Your task to perform on an android device: toggle translation in the chrome app Image 0: 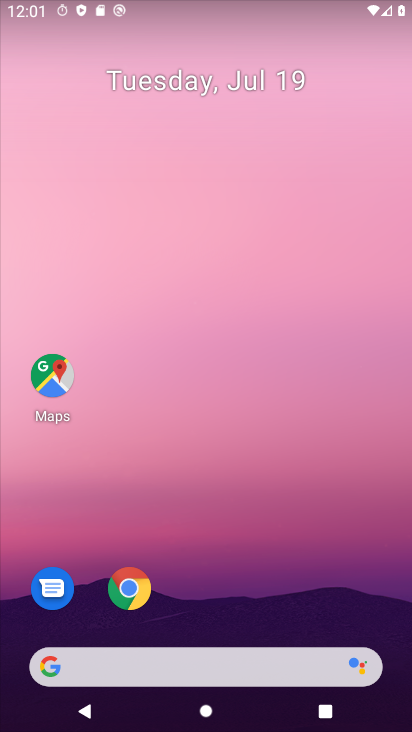
Step 0: drag from (204, 326) to (139, 57)
Your task to perform on an android device: toggle translation in the chrome app Image 1: 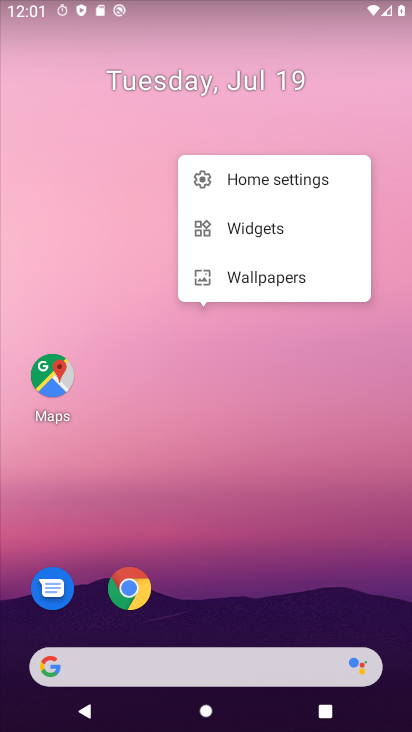
Step 1: drag from (175, 210) to (125, 25)
Your task to perform on an android device: toggle translation in the chrome app Image 2: 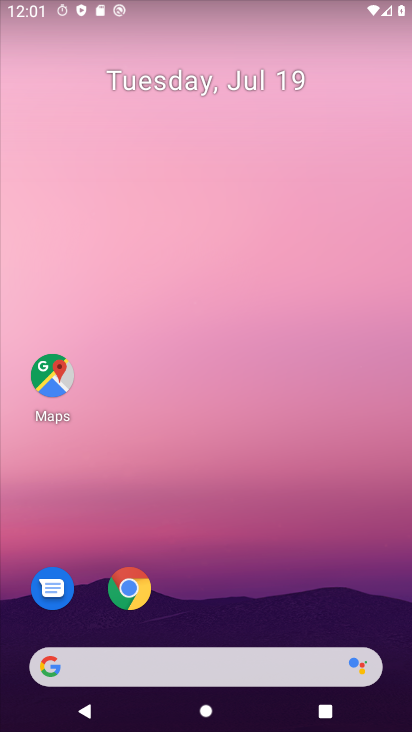
Step 2: click (167, 150)
Your task to perform on an android device: toggle translation in the chrome app Image 3: 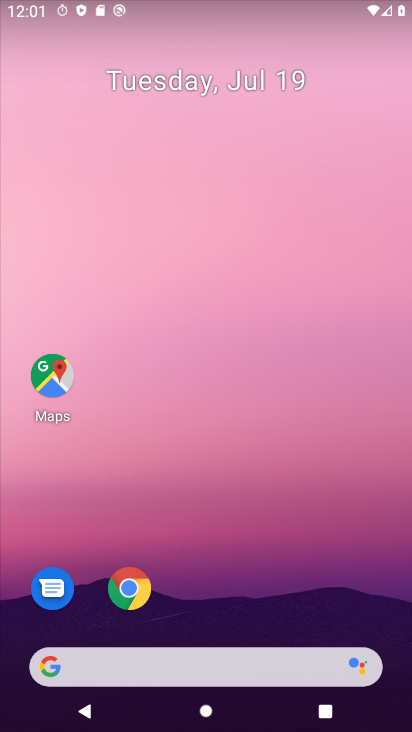
Step 3: drag from (170, 188) to (166, 132)
Your task to perform on an android device: toggle translation in the chrome app Image 4: 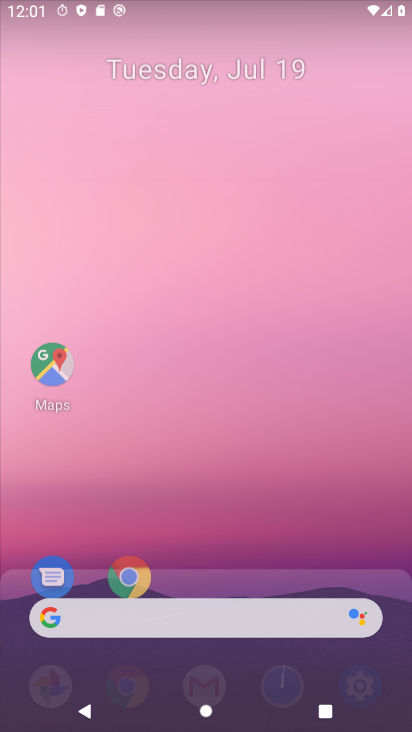
Step 4: click (148, 58)
Your task to perform on an android device: toggle translation in the chrome app Image 5: 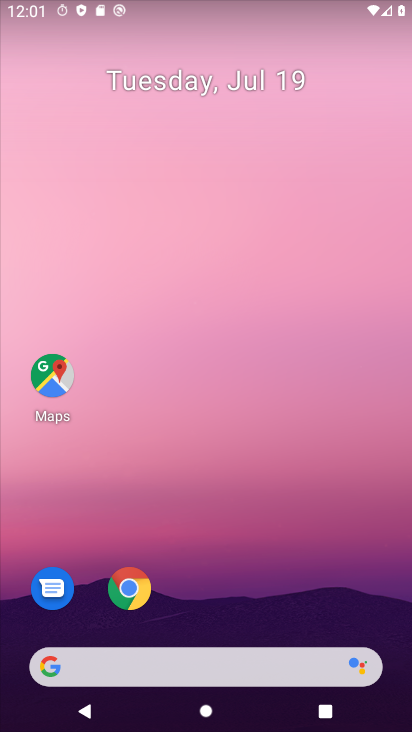
Step 5: drag from (208, 118) to (164, 77)
Your task to perform on an android device: toggle translation in the chrome app Image 6: 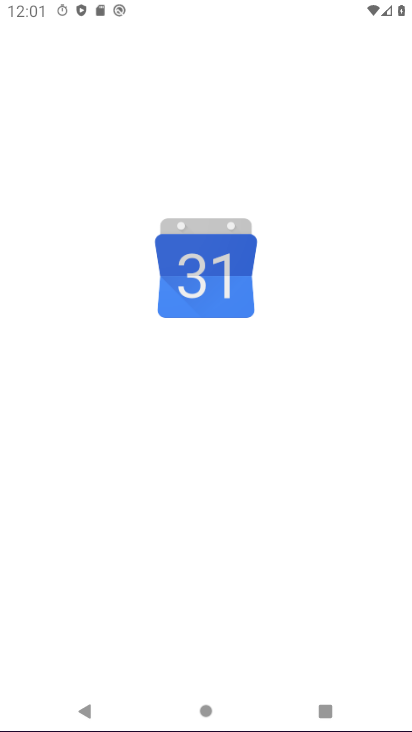
Step 6: drag from (187, 23) to (206, 121)
Your task to perform on an android device: toggle translation in the chrome app Image 7: 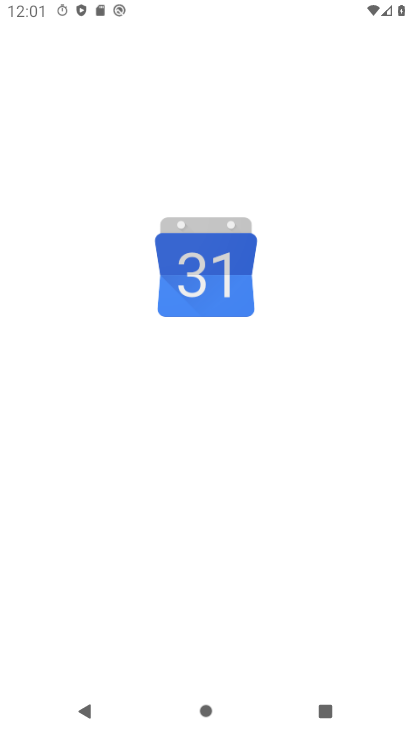
Step 7: click (224, 213)
Your task to perform on an android device: toggle translation in the chrome app Image 8: 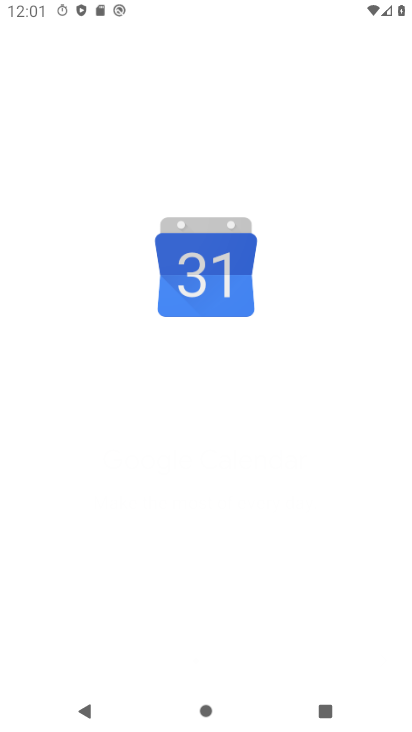
Step 8: click (220, 453)
Your task to perform on an android device: toggle translation in the chrome app Image 9: 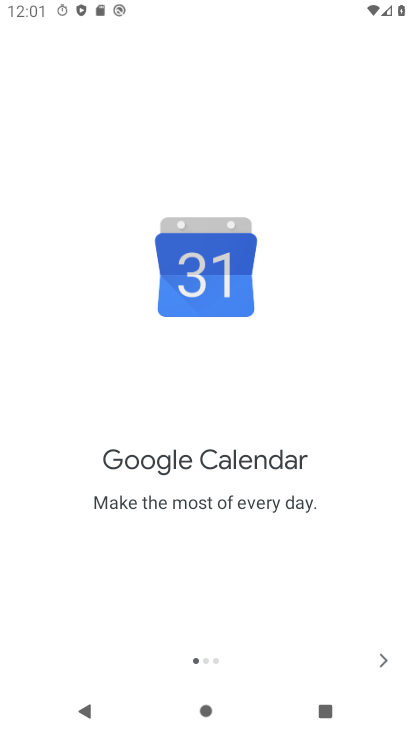
Step 9: click (189, 109)
Your task to perform on an android device: toggle translation in the chrome app Image 10: 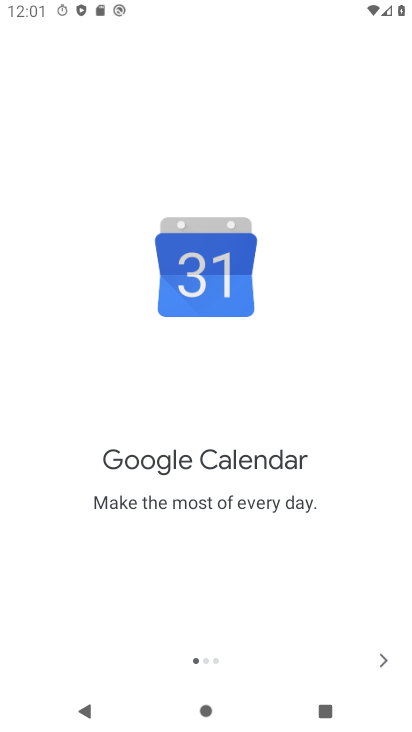
Step 10: press back button
Your task to perform on an android device: toggle translation in the chrome app Image 11: 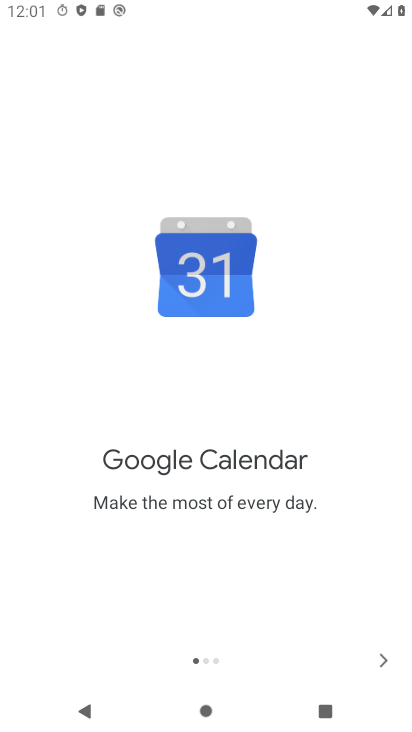
Step 11: press back button
Your task to perform on an android device: toggle translation in the chrome app Image 12: 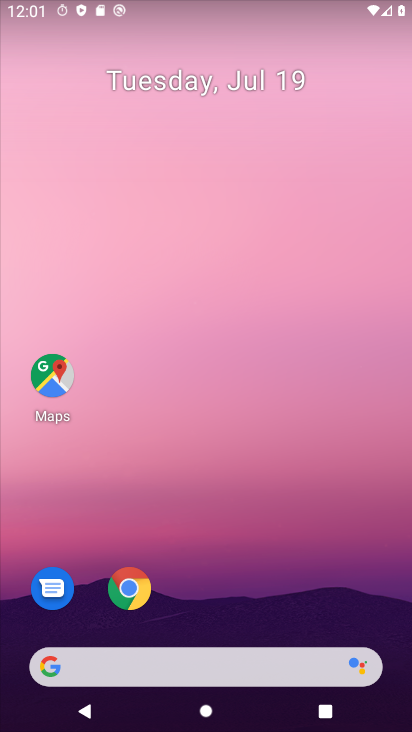
Step 12: drag from (259, 534) to (175, 48)
Your task to perform on an android device: toggle translation in the chrome app Image 13: 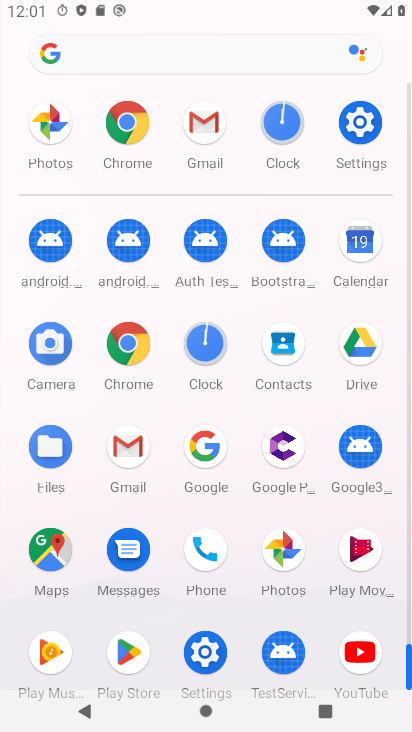
Step 13: click (113, 131)
Your task to perform on an android device: toggle translation in the chrome app Image 14: 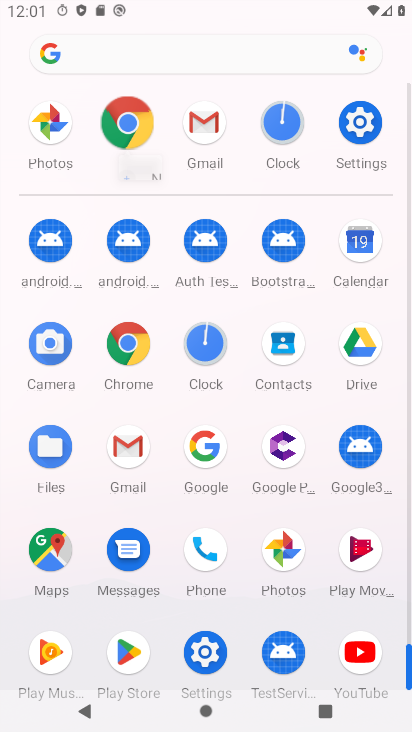
Step 14: click (124, 131)
Your task to perform on an android device: toggle translation in the chrome app Image 15: 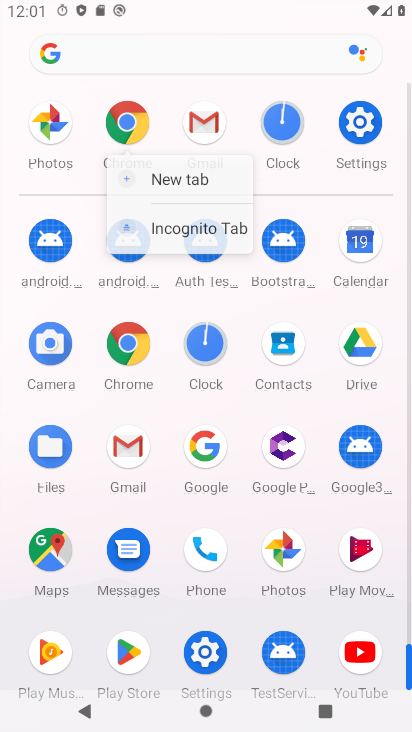
Step 15: click (124, 131)
Your task to perform on an android device: toggle translation in the chrome app Image 16: 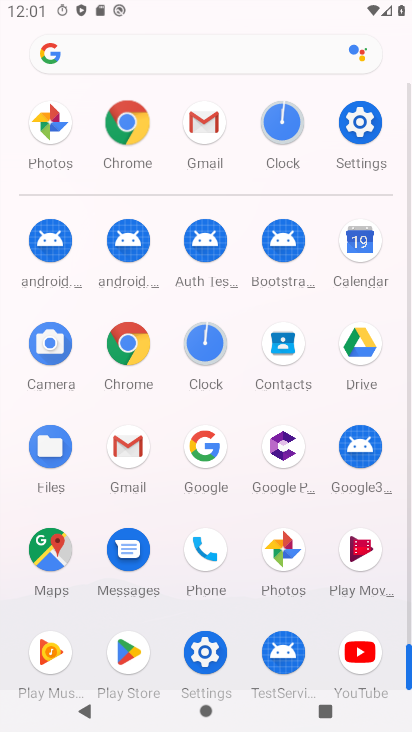
Step 16: click (131, 125)
Your task to perform on an android device: toggle translation in the chrome app Image 17: 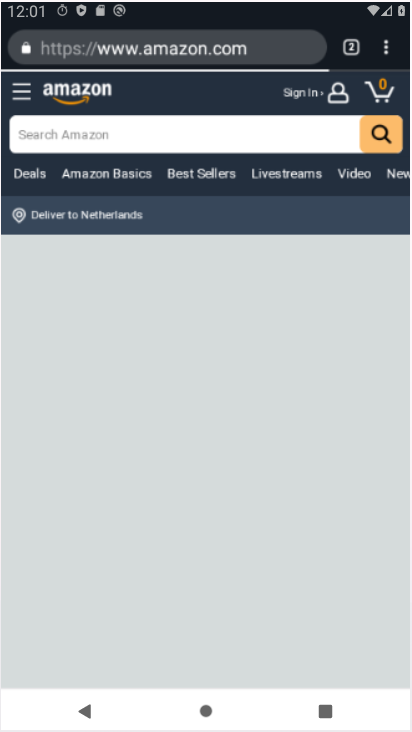
Step 17: click (133, 125)
Your task to perform on an android device: toggle translation in the chrome app Image 18: 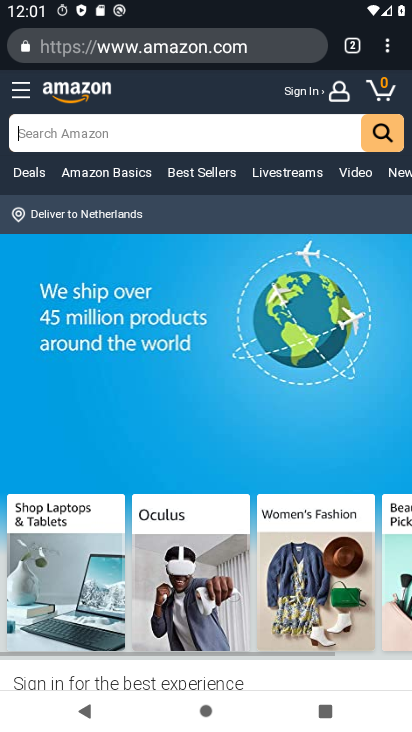
Step 18: drag from (386, 47) to (217, 557)
Your task to perform on an android device: toggle translation in the chrome app Image 19: 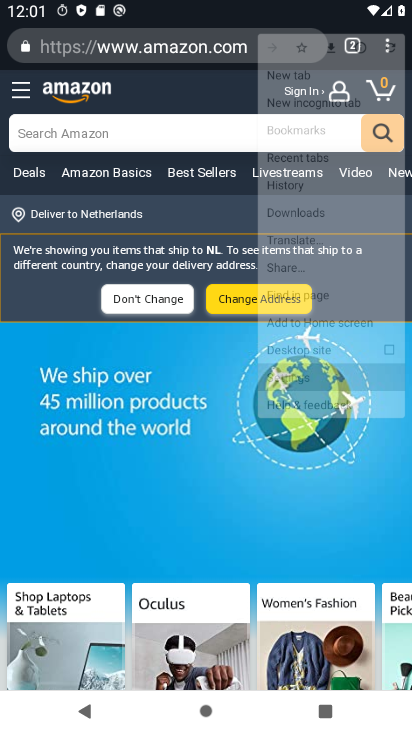
Step 19: click (222, 560)
Your task to perform on an android device: toggle translation in the chrome app Image 20: 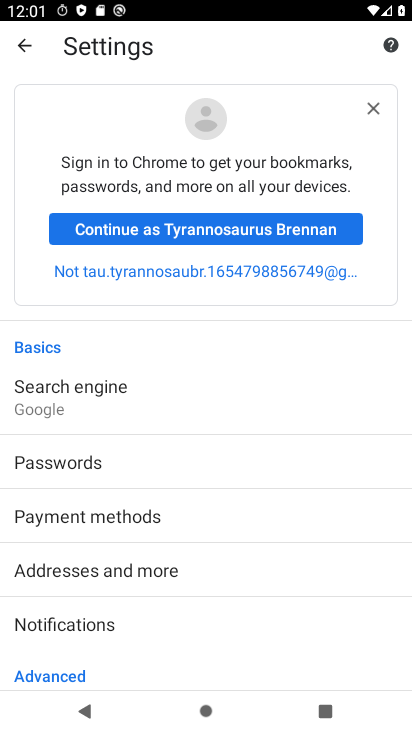
Step 20: drag from (148, 591) to (123, 391)
Your task to perform on an android device: toggle translation in the chrome app Image 21: 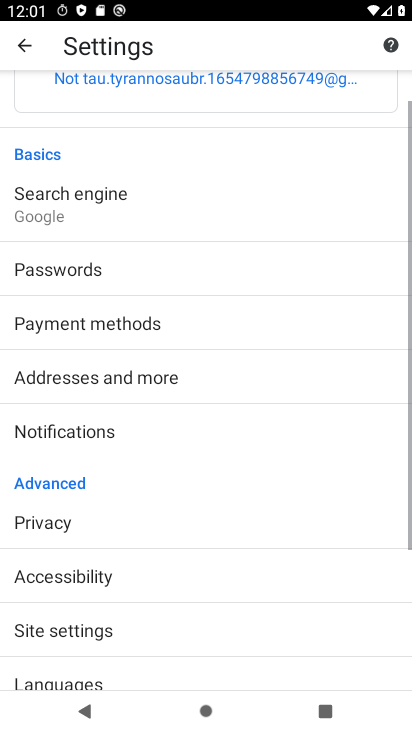
Step 21: drag from (152, 476) to (160, 251)
Your task to perform on an android device: toggle translation in the chrome app Image 22: 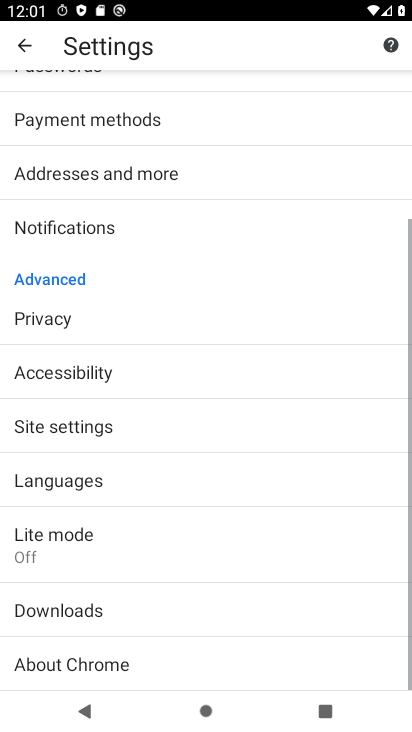
Step 22: drag from (156, 333) to (156, 241)
Your task to perform on an android device: toggle translation in the chrome app Image 23: 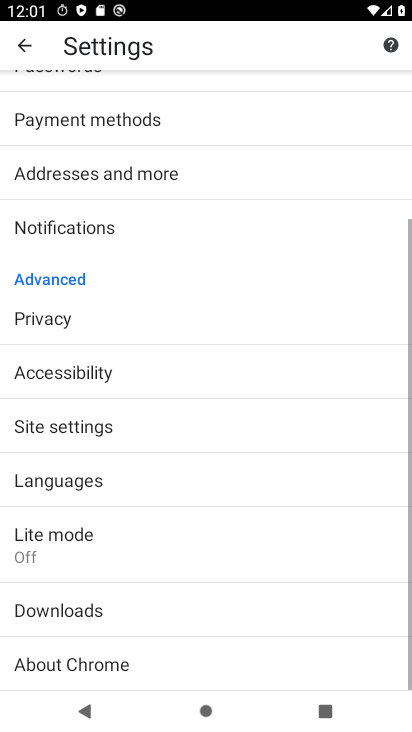
Step 23: drag from (160, 358) to (160, 241)
Your task to perform on an android device: toggle translation in the chrome app Image 24: 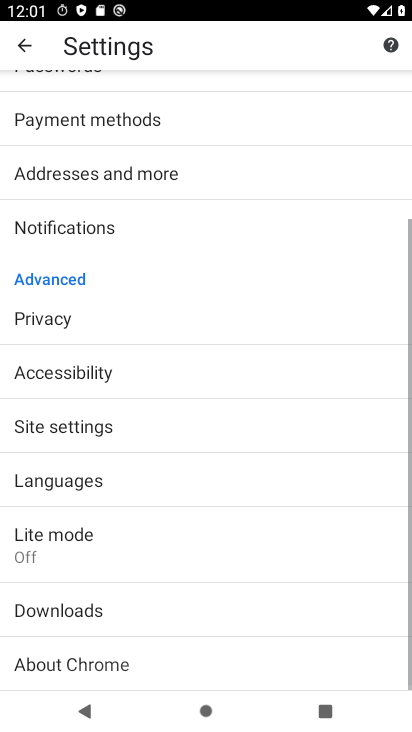
Step 24: drag from (124, 625) to (117, 246)
Your task to perform on an android device: toggle translation in the chrome app Image 25: 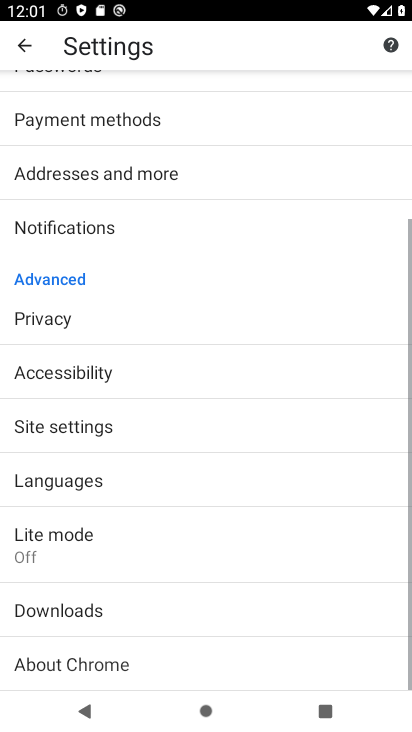
Step 25: drag from (204, 270) to (204, 201)
Your task to perform on an android device: toggle translation in the chrome app Image 26: 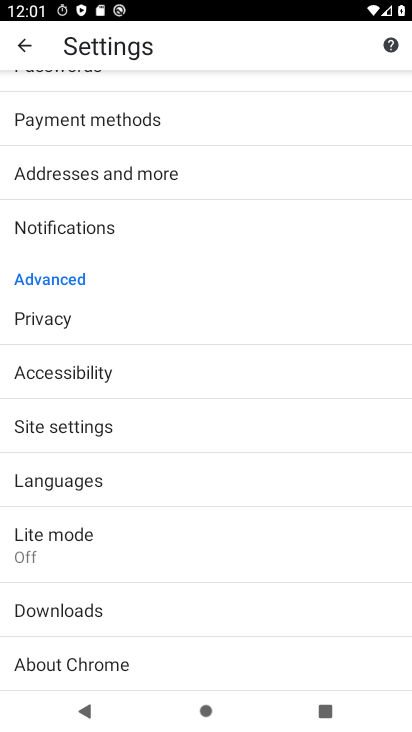
Step 26: click (84, 472)
Your task to perform on an android device: toggle translation in the chrome app Image 27: 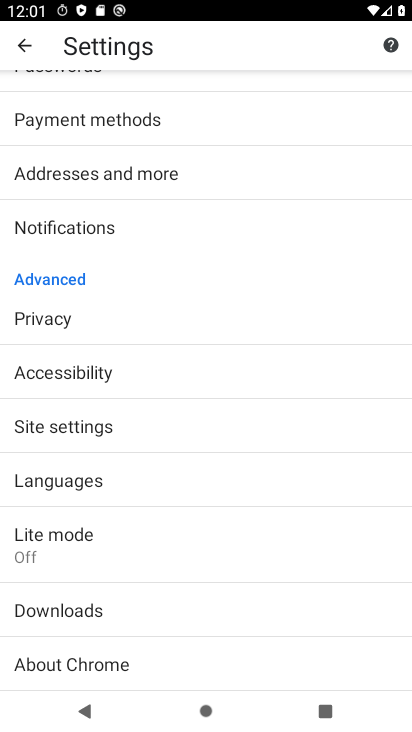
Step 27: click (85, 474)
Your task to perform on an android device: toggle translation in the chrome app Image 28: 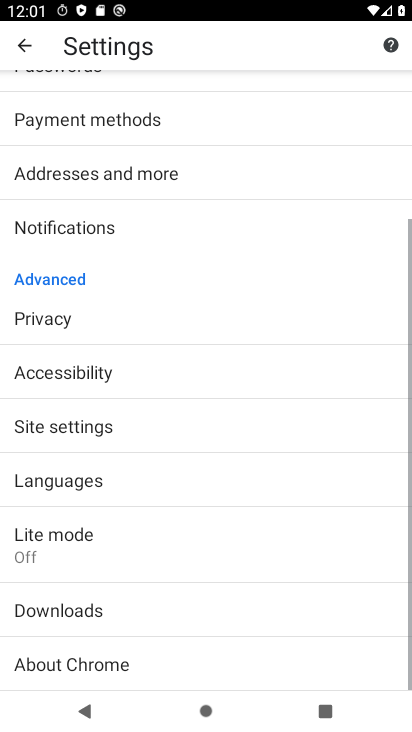
Step 28: click (92, 480)
Your task to perform on an android device: toggle translation in the chrome app Image 29: 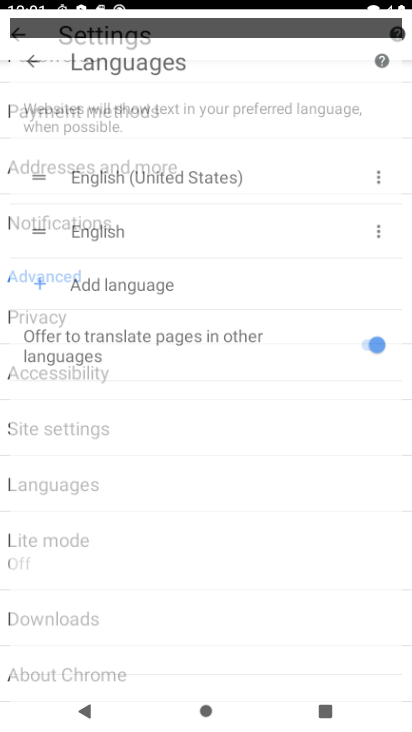
Step 29: click (93, 481)
Your task to perform on an android device: toggle translation in the chrome app Image 30: 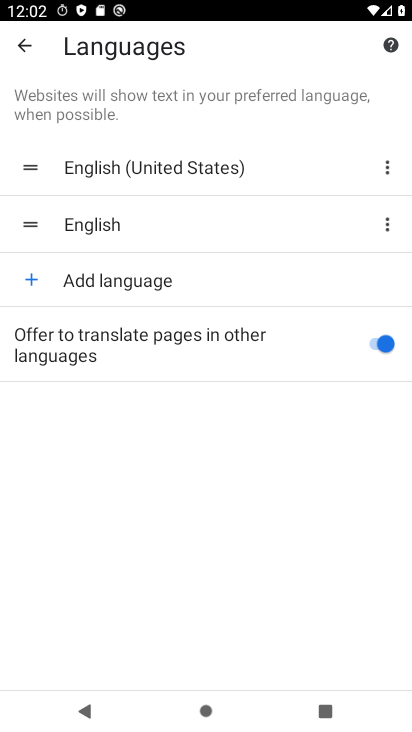
Step 30: click (377, 339)
Your task to perform on an android device: toggle translation in the chrome app Image 31: 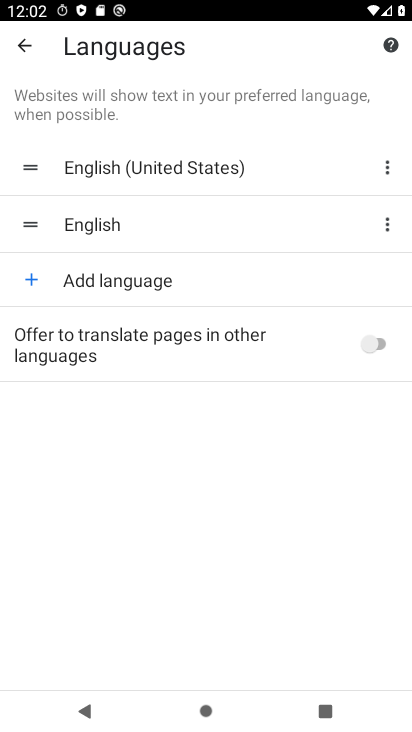
Step 31: click (388, 344)
Your task to perform on an android device: toggle translation in the chrome app Image 32: 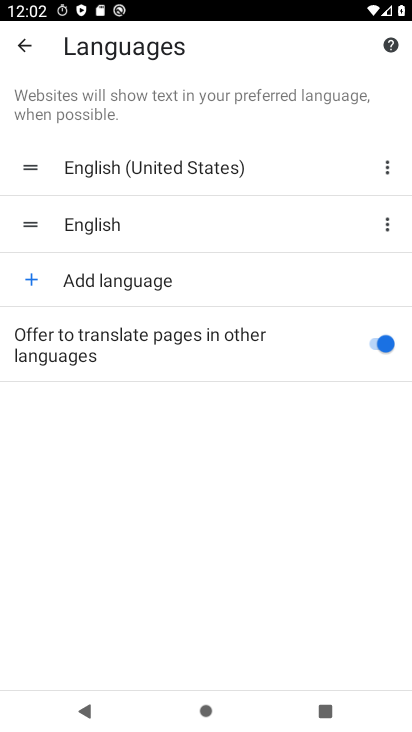
Step 32: click (379, 340)
Your task to perform on an android device: toggle translation in the chrome app Image 33: 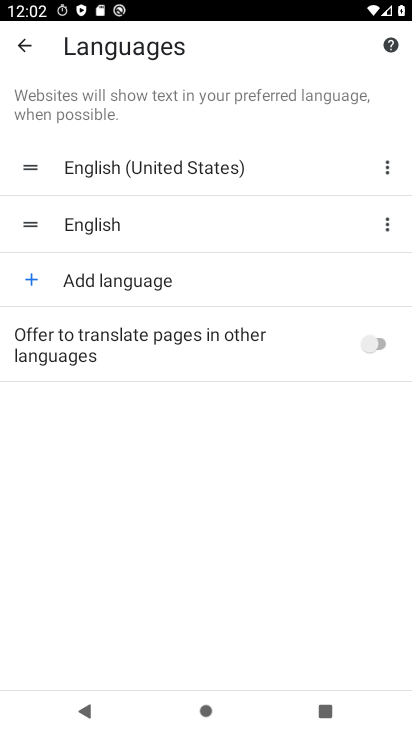
Step 33: task complete